Your task to perform on an android device: toggle notification dots Image 0: 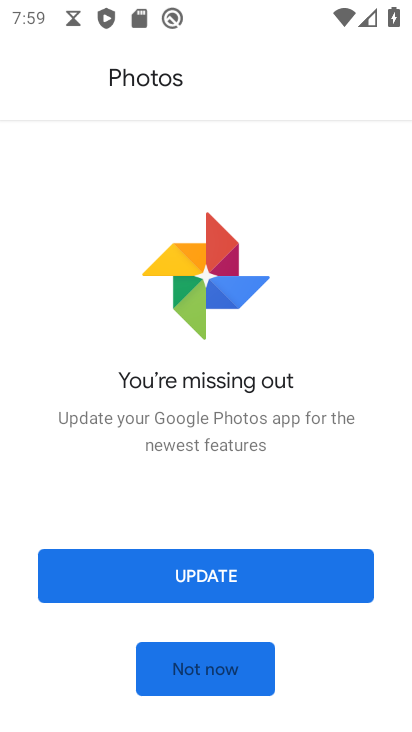
Step 0: press back button
Your task to perform on an android device: toggle notification dots Image 1: 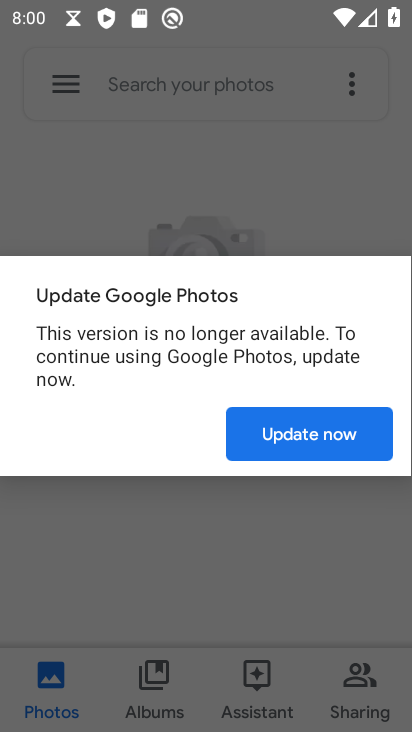
Step 1: press home button
Your task to perform on an android device: toggle notification dots Image 2: 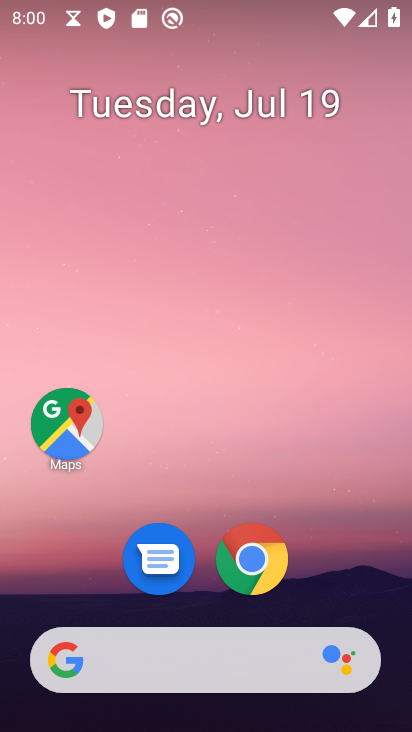
Step 2: drag from (64, 560) to (226, 21)
Your task to perform on an android device: toggle notification dots Image 3: 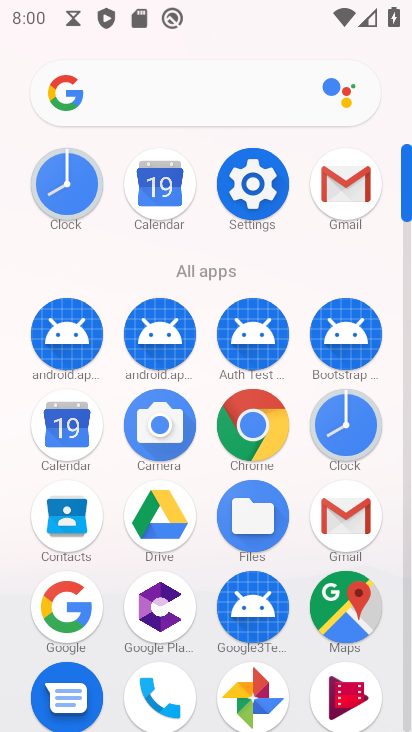
Step 3: click (246, 167)
Your task to perform on an android device: toggle notification dots Image 4: 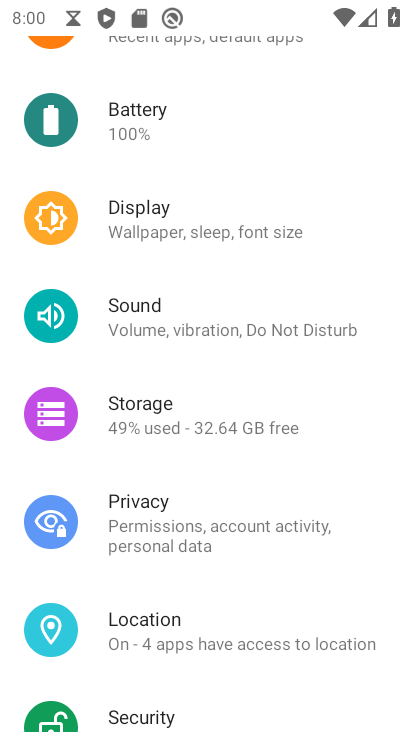
Step 4: drag from (225, 161) to (140, 695)
Your task to perform on an android device: toggle notification dots Image 5: 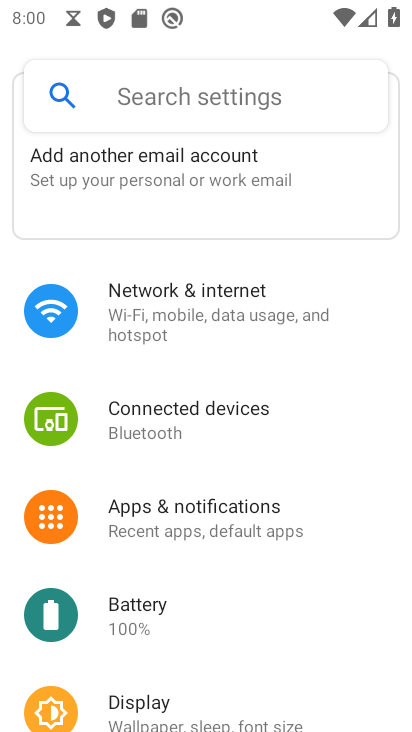
Step 5: click (187, 525)
Your task to perform on an android device: toggle notification dots Image 6: 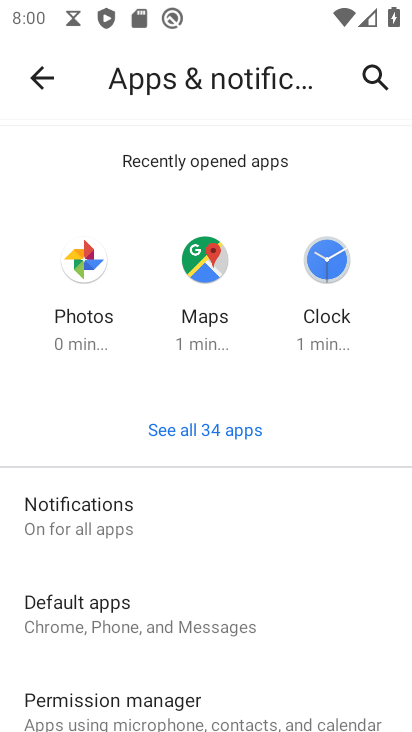
Step 6: click (155, 517)
Your task to perform on an android device: toggle notification dots Image 7: 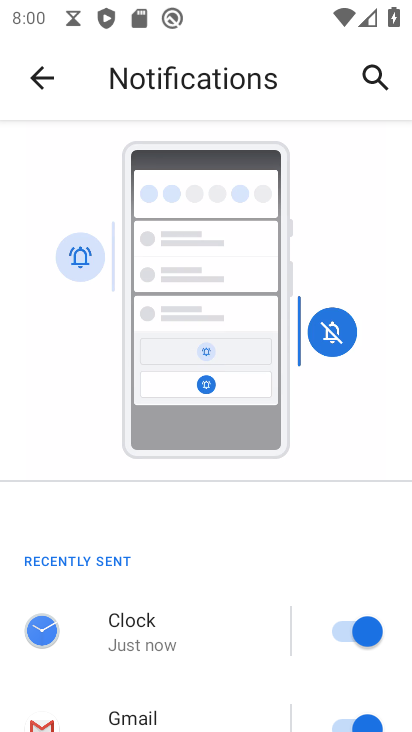
Step 7: drag from (188, 672) to (276, 7)
Your task to perform on an android device: toggle notification dots Image 8: 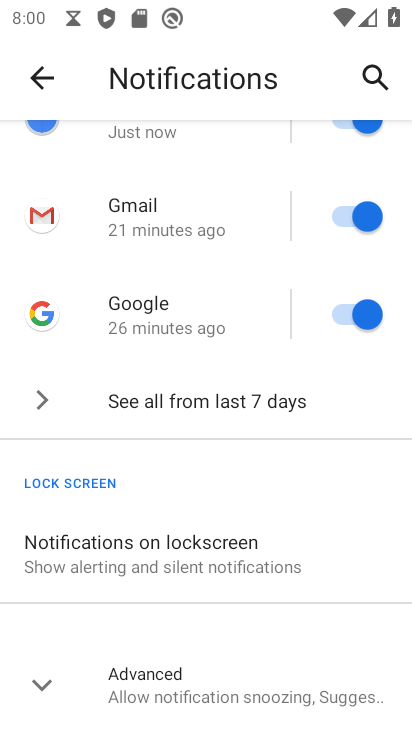
Step 8: click (146, 678)
Your task to perform on an android device: toggle notification dots Image 9: 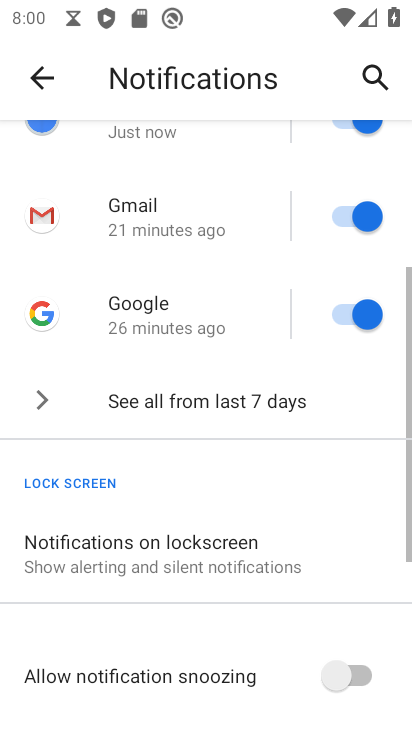
Step 9: drag from (165, 630) to (238, 59)
Your task to perform on an android device: toggle notification dots Image 10: 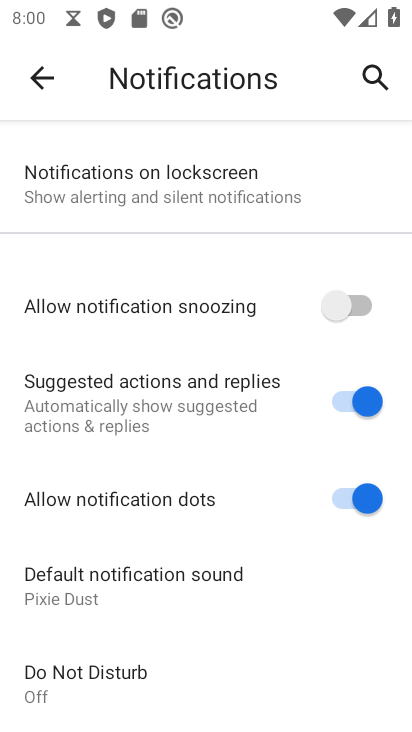
Step 10: click (363, 500)
Your task to perform on an android device: toggle notification dots Image 11: 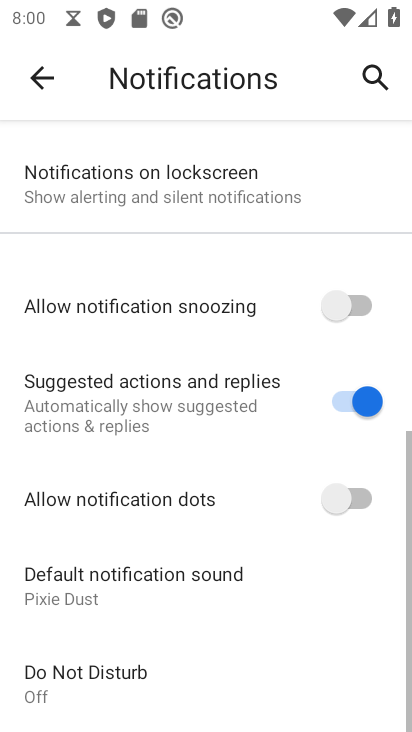
Step 11: task complete